Your task to perform on an android device: delete the emails in spam in the gmail app Image 0: 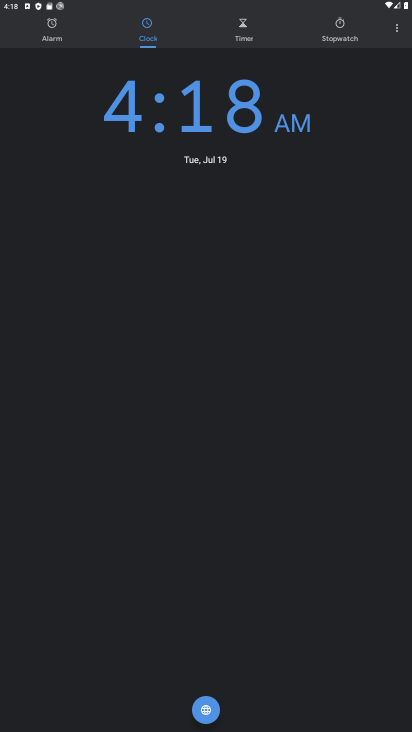
Step 0: drag from (264, 676) to (341, 127)
Your task to perform on an android device: delete the emails in spam in the gmail app Image 1: 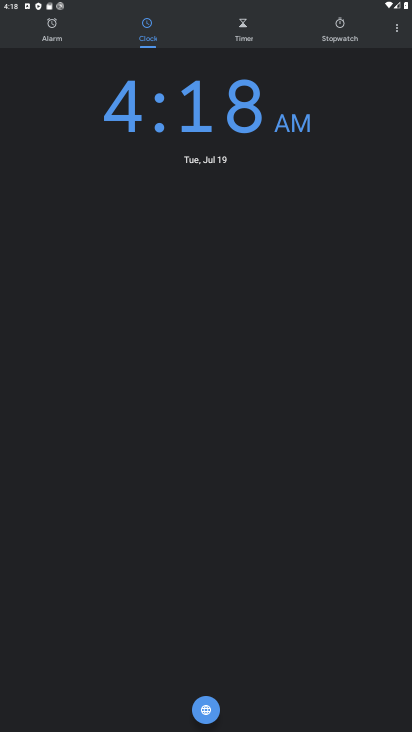
Step 1: press home button
Your task to perform on an android device: delete the emails in spam in the gmail app Image 2: 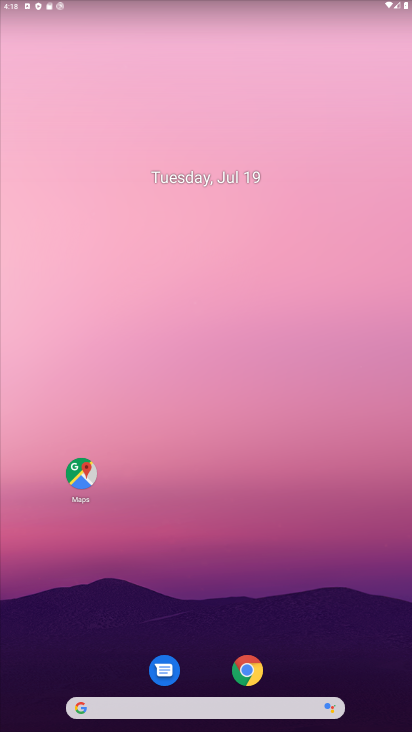
Step 2: drag from (264, 706) to (300, 204)
Your task to perform on an android device: delete the emails in spam in the gmail app Image 3: 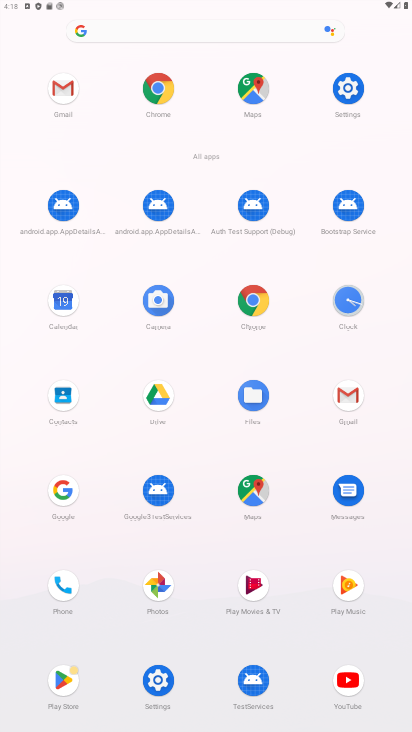
Step 3: click (342, 389)
Your task to perform on an android device: delete the emails in spam in the gmail app Image 4: 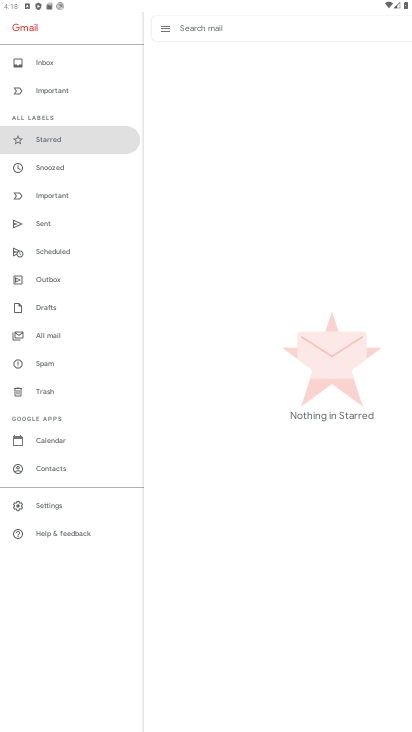
Step 4: click (54, 363)
Your task to perform on an android device: delete the emails in spam in the gmail app Image 5: 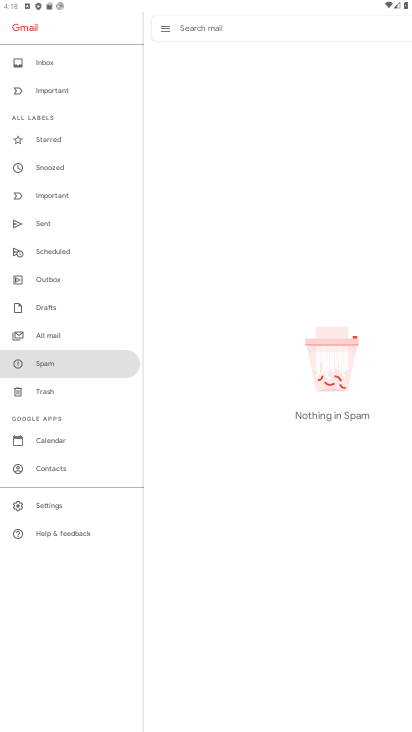
Step 5: task complete